Your task to perform on an android device: check battery use Image 0: 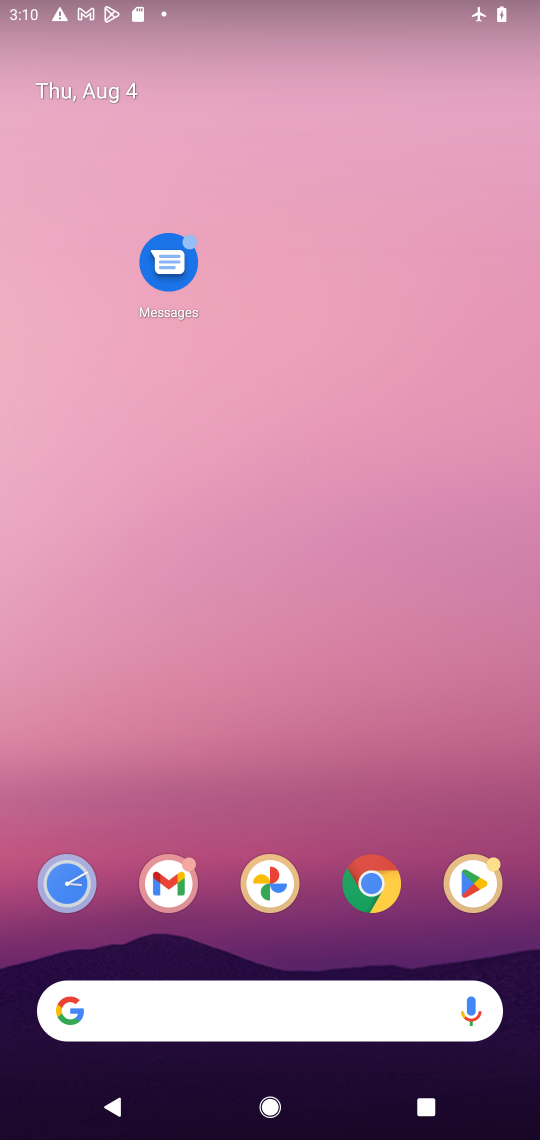
Step 0: drag from (329, 954) to (316, 81)
Your task to perform on an android device: check battery use Image 1: 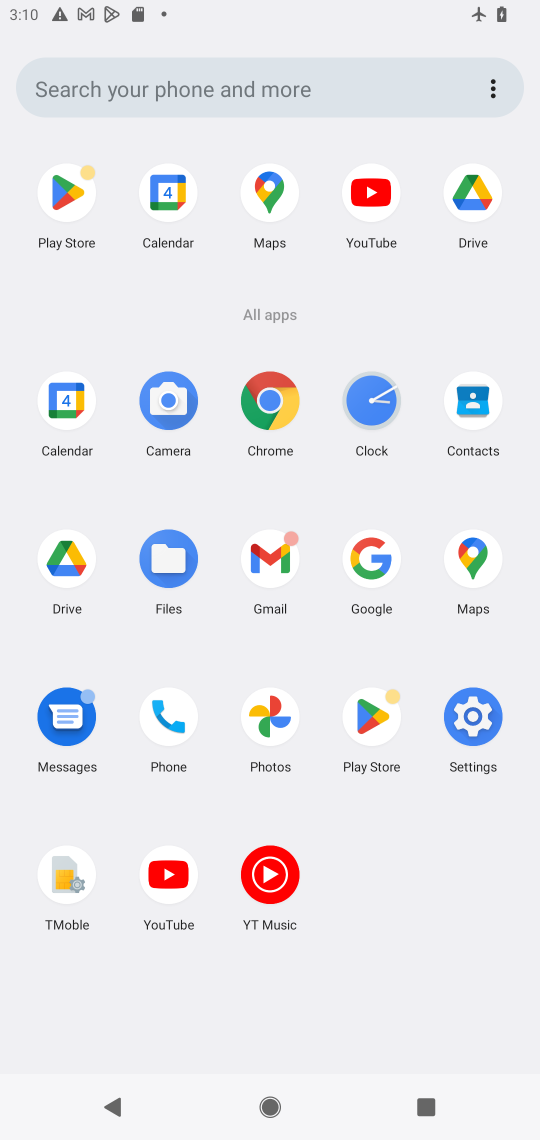
Step 1: click (474, 721)
Your task to perform on an android device: check battery use Image 2: 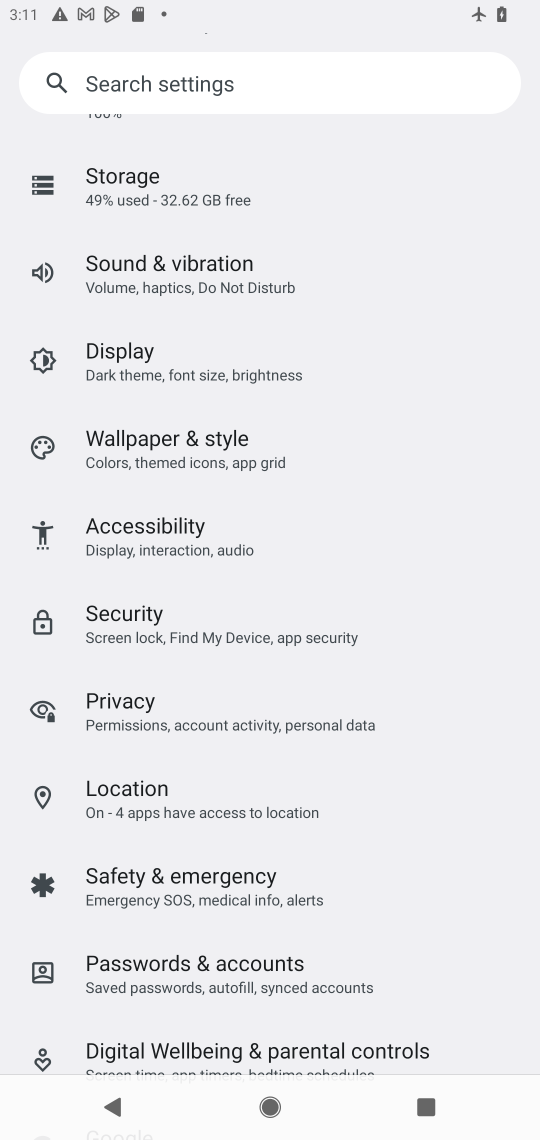
Step 2: drag from (176, 1003) to (166, 746)
Your task to perform on an android device: check battery use Image 3: 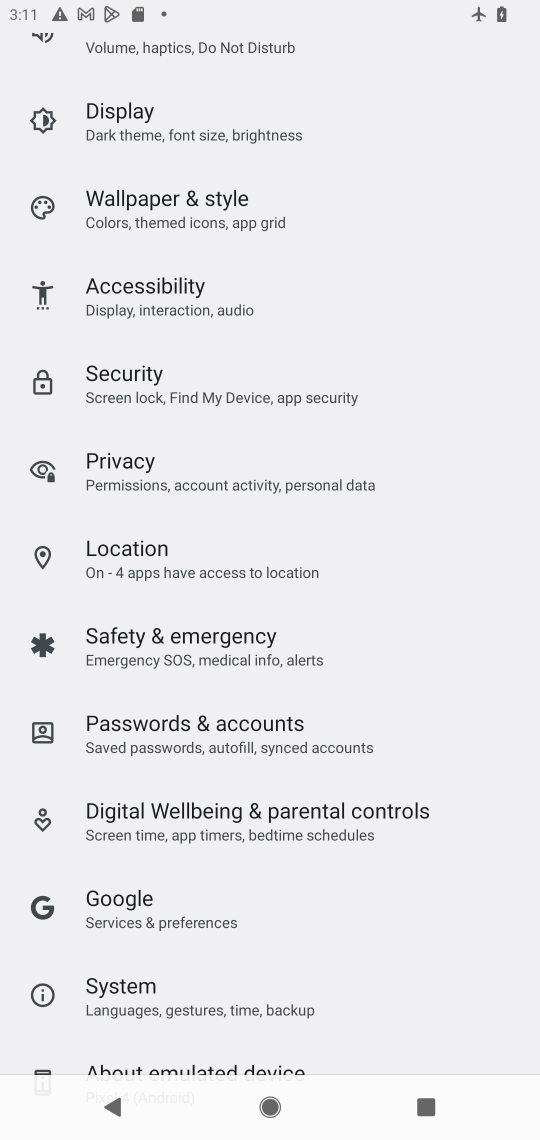
Step 3: drag from (383, 998) to (370, 447)
Your task to perform on an android device: check battery use Image 4: 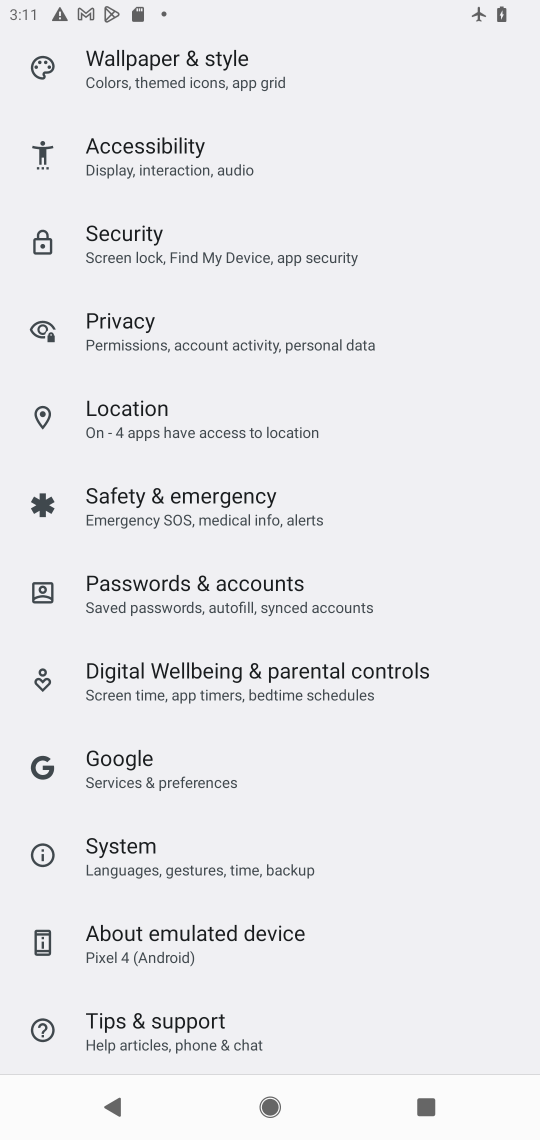
Step 4: drag from (320, 1018) to (339, 418)
Your task to perform on an android device: check battery use Image 5: 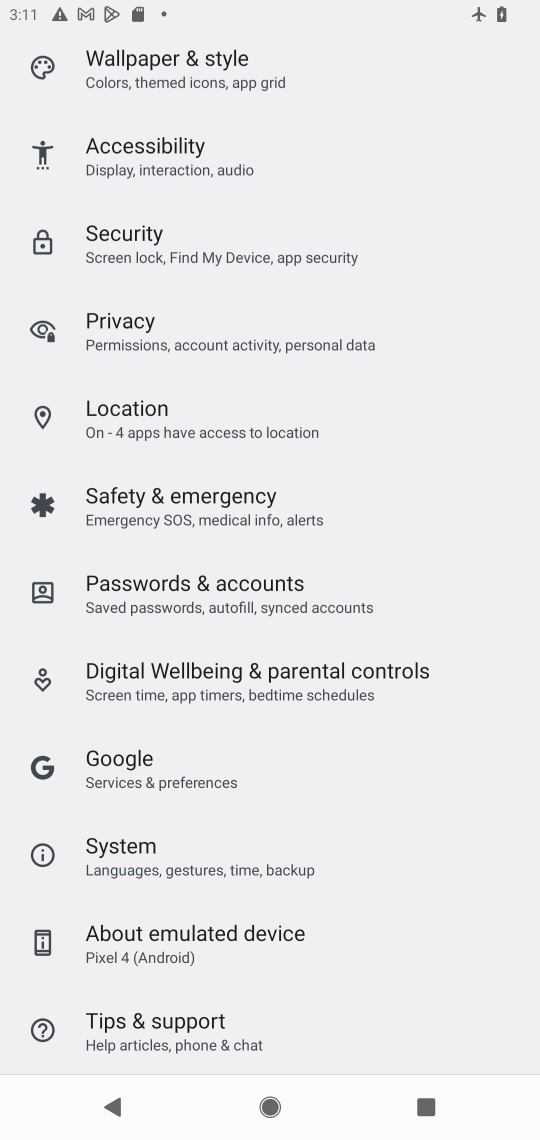
Step 5: drag from (416, 267) to (422, 968)
Your task to perform on an android device: check battery use Image 6: 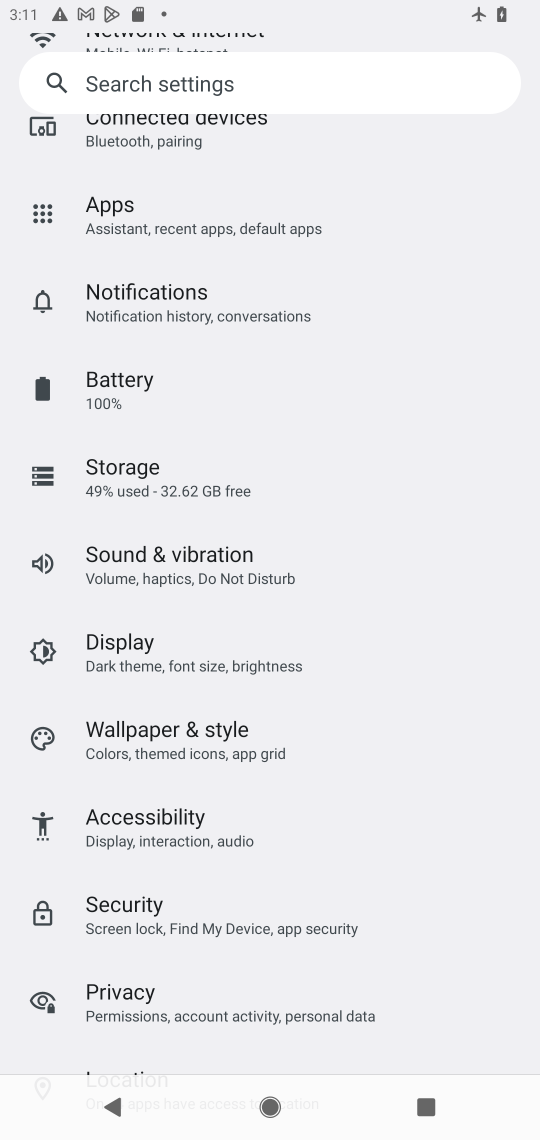
Step 6: click (123, 378)
Your task to perform on an android device: check battery use Image 7: 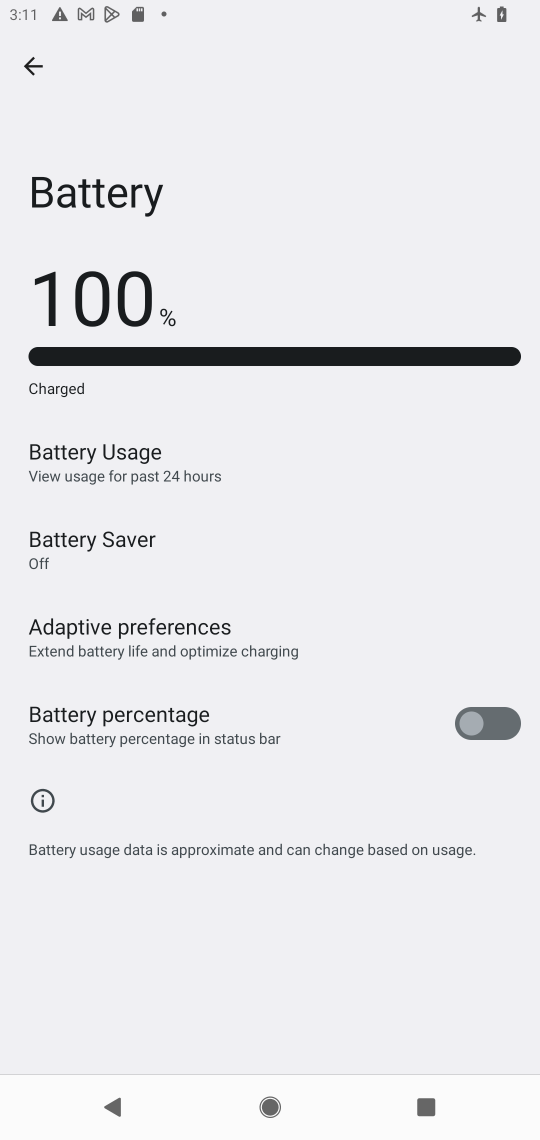
Step 7: click (106, 471)
Your task to perform on an android device: check battery use Image 8: 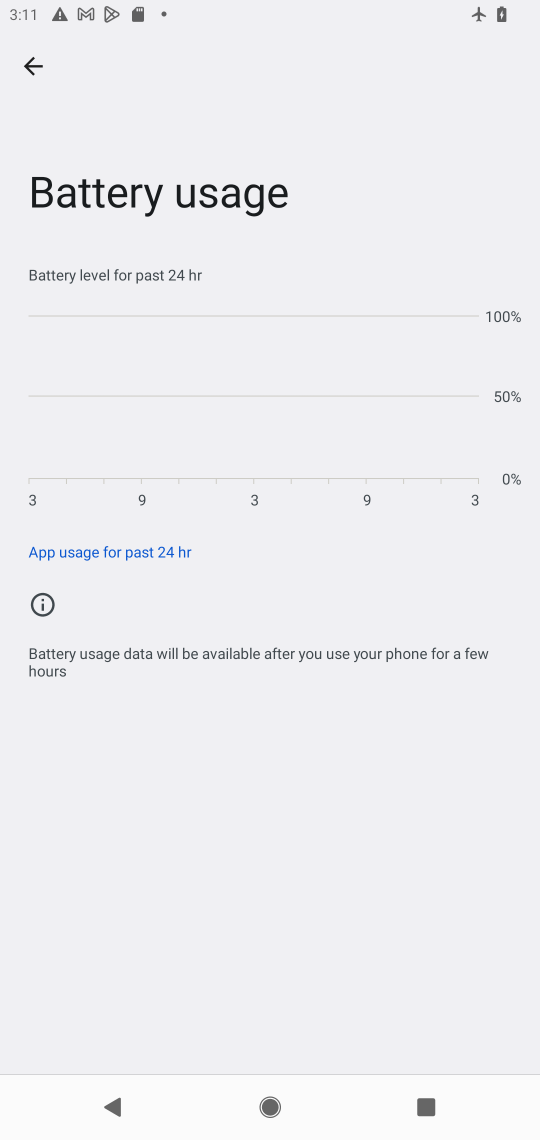
Step 8: task complete